Your task to perform on an android device: delete a single message in the gmail app Image 0: 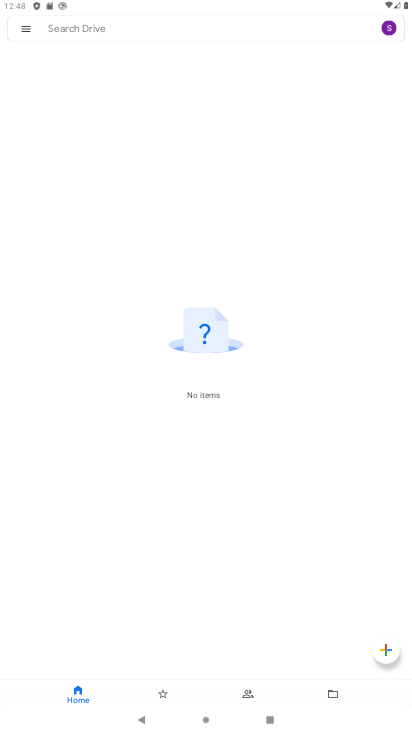
Step 0: press home button
Your task to perform on an android device: delete a single message in the gmail app Image 1: 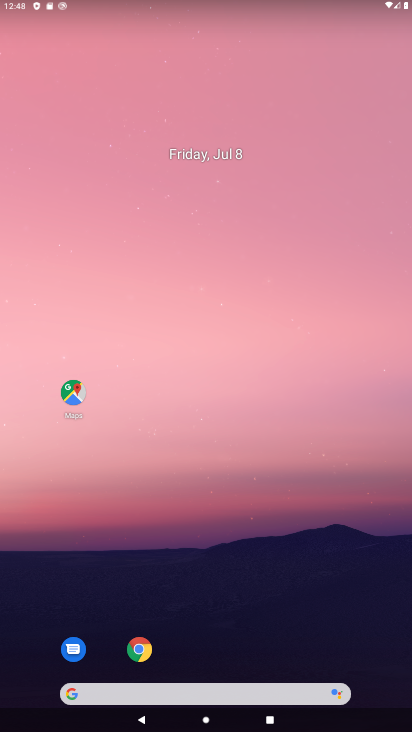
Step 1: drag from (61, 723) to (313, 37)
Your task to perform on an android device: delete a single message in the gmail app Image 2: 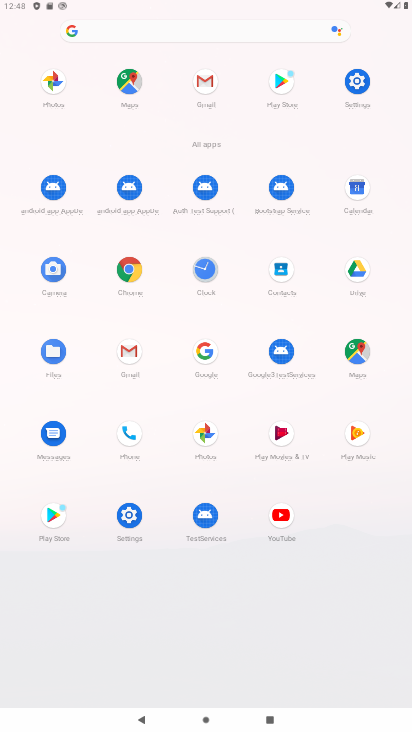
Step 2: click (134, 365)
Your task to perform on an android device: delete a single message in the gmail app Image 3: 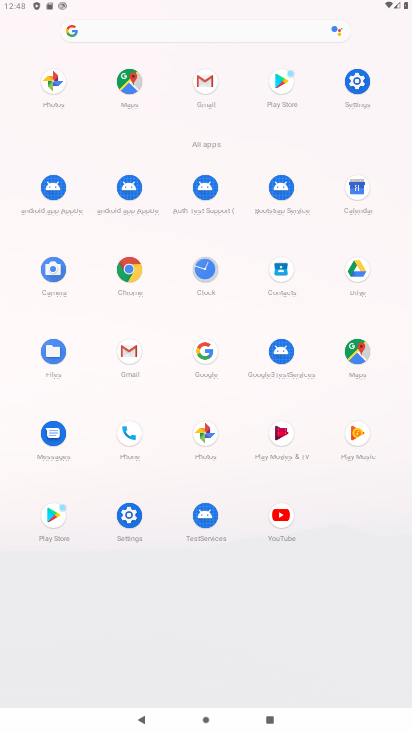
Step 3: click (128, 350)
Your task to perform on an android device: delete a single message in the gmail app Image 4: 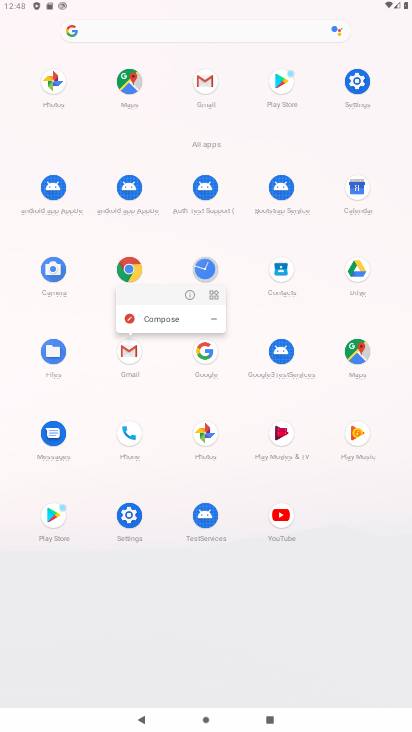
Step 4: click (128, 351)
Your task to perform on an android device: delete a single message in the gmail app Image 5: 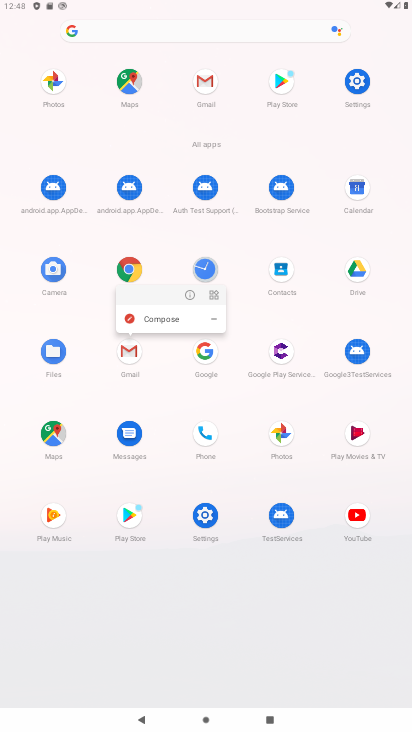
Step 5: click (131, 374)
Your task to perform on an android device: delete a single message in the gmail app Image 6: 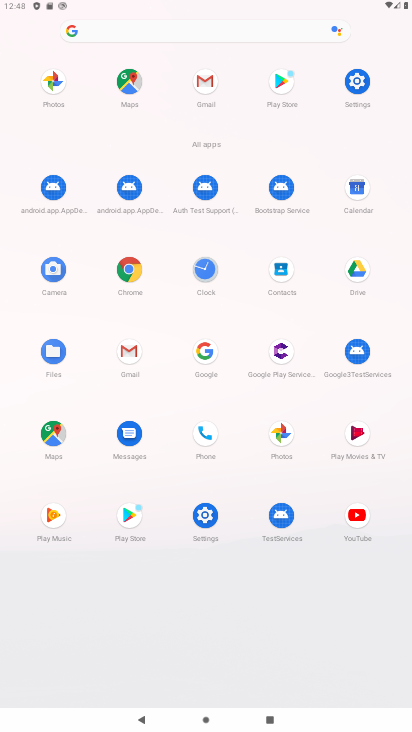
Step 6: click (130, 351)
Your task to perform on an android device: delete a single message in the gmail app Image 7: 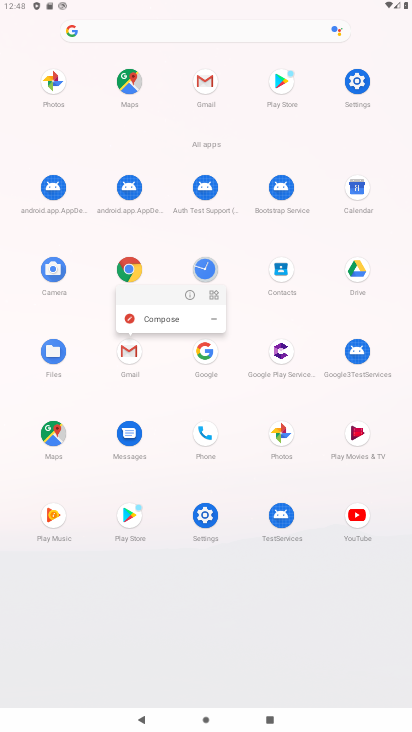
Step 7: click (130, 348)
Your task to perform on an android device: delete a single message in the gmail app Image 8: 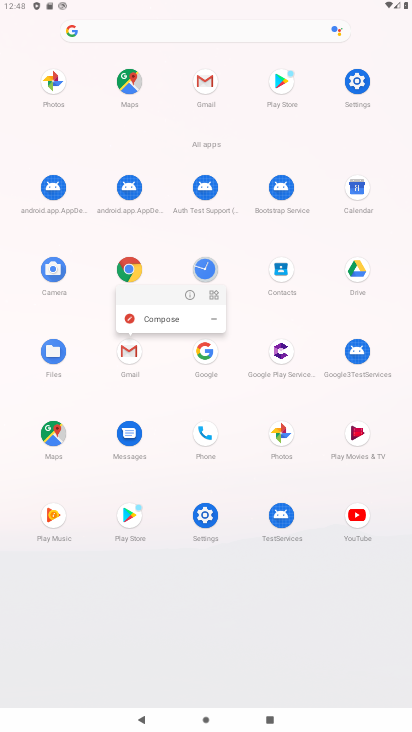
Step 8: click (132, 353)
Your task to perform on an android device: delete a single message in the gmail app Image 9: 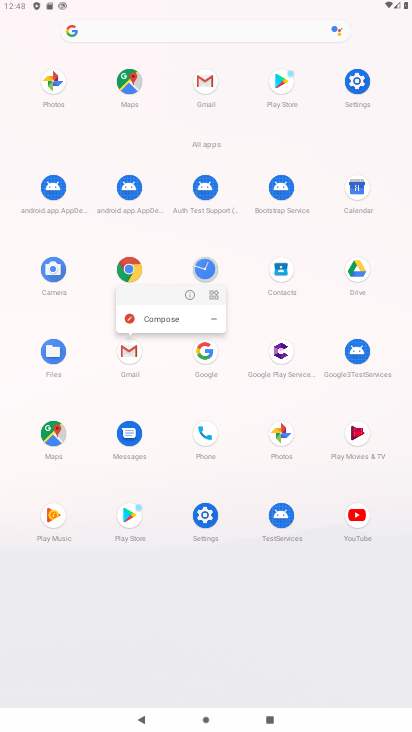
Step 9: task complete